Your task to perform on an android device: see creations saved in the google photos Image 0: 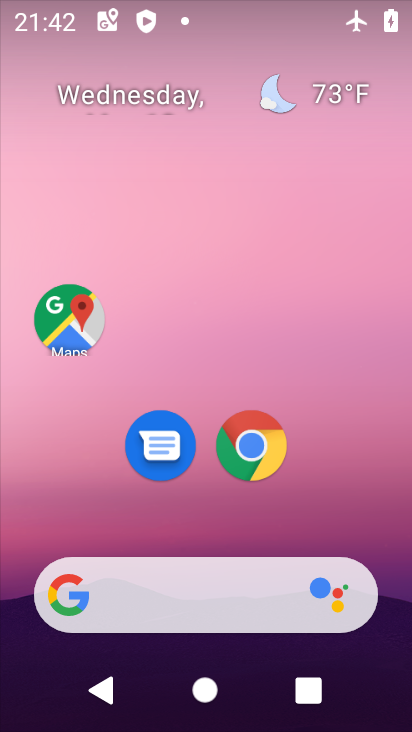
Step 0: drag from (316, 529) to (324, 261)
Your task to perform on an android device: see creations saved in the google photos Image 1: 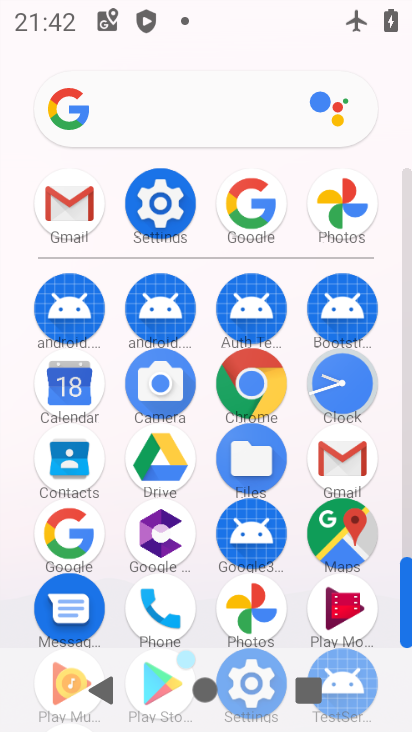
Step 1: click (240, 613)
Your task to perform on an android device: see creations saved in the google photos Image 2: 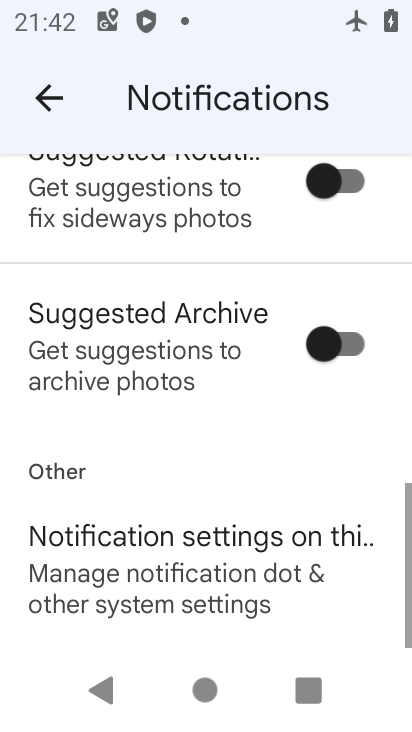
Step 2: click (49, 95)
Your task to perform on an android device: see creations saved in the google photos Image 3: 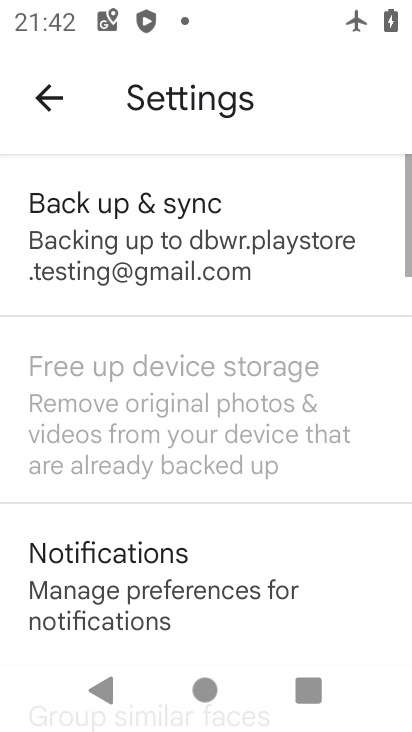
Step 3: click (49, 95)
Your task to perform on an android device: see creations saved in the google photos Image 4: 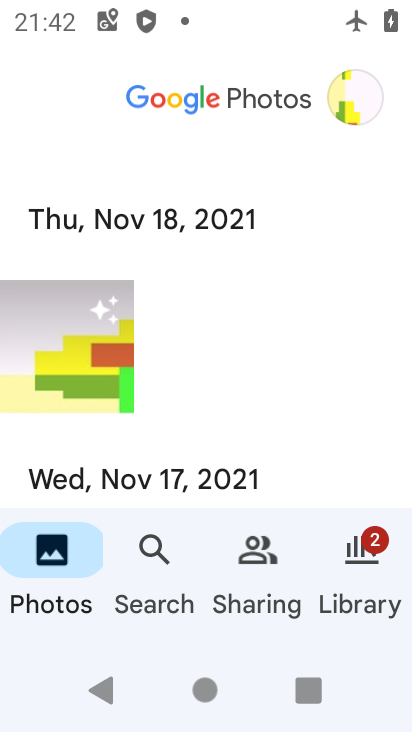
Step 4: click (82, 353)
Your task to perform on an android device: see creations saved in the google photos Image 5: 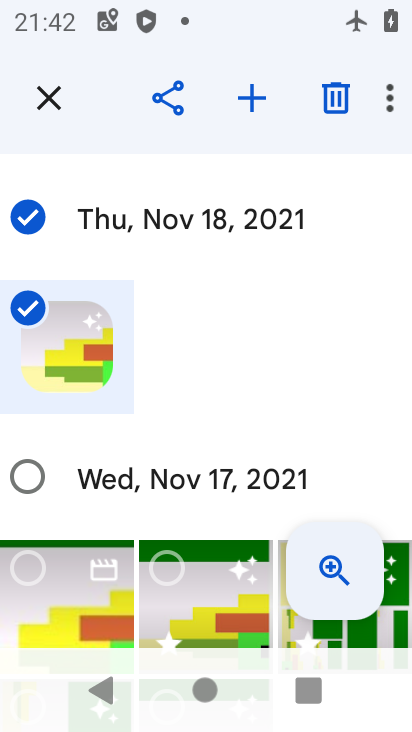
Step 5: click (45, 88)
Your task to perform on an android device: see creations saved in the google photos Image 6: 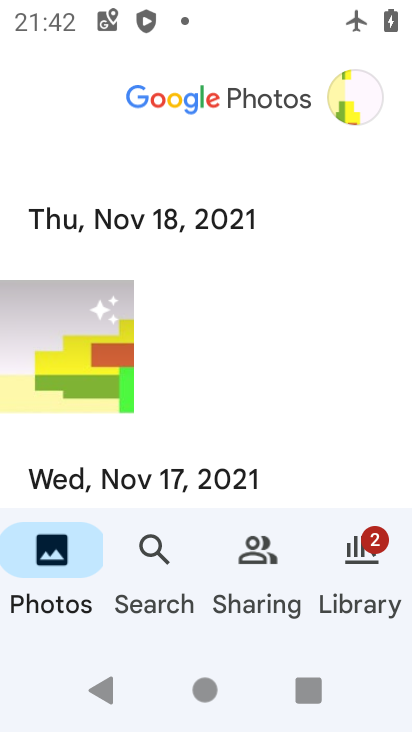
Step 6: task complete